Your task to perform on an android device: Open sound settings Image 0: 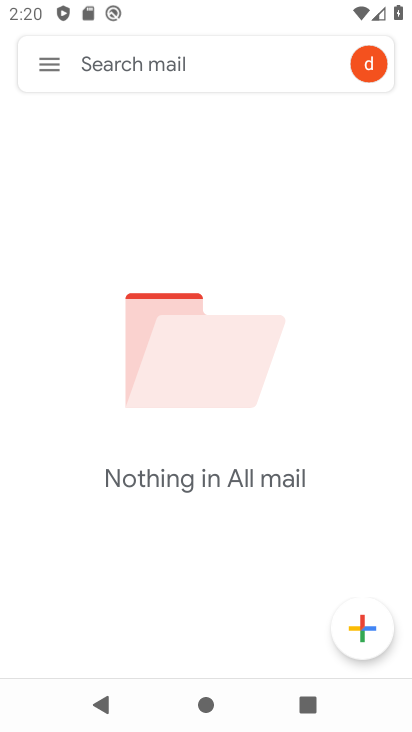
Step 0: press home button
Your task to perform on an android device: Open sound settings Image 1: 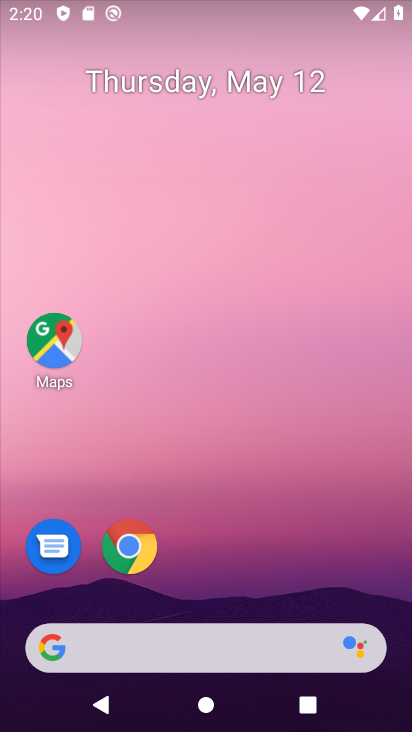
Step 1: drag from (176, 630) to (270, 108)
Your task to perform on an android device: Open sound settings Image 2: 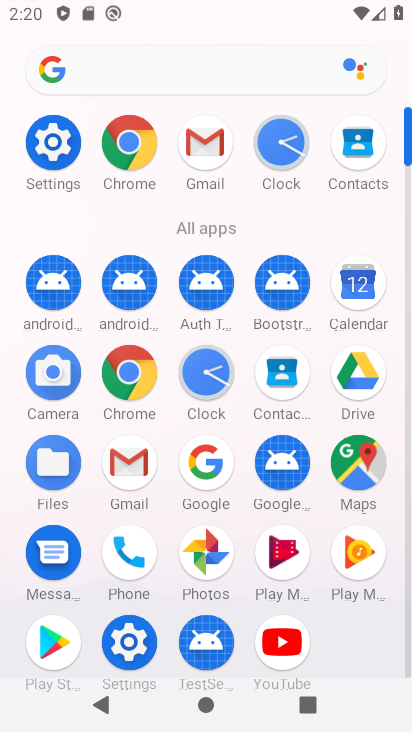
Step 2: drag from (203, 644) to (260, 344)
Your task to perform on an android device: Open sound settings Image 3: 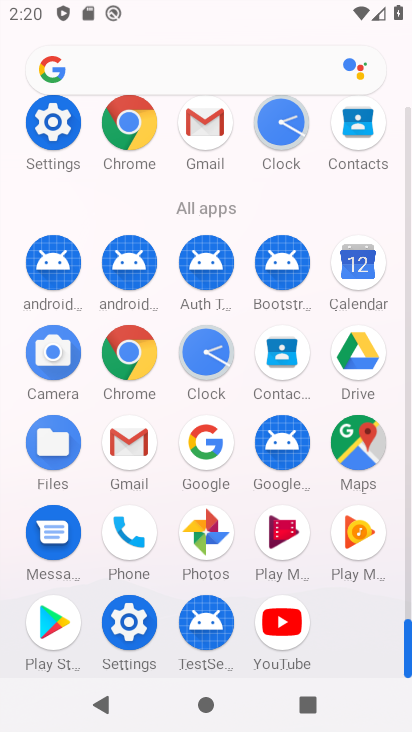
Step 3: click (141, 631)
Your task to perform on an android device: Open sound settings Image 4: 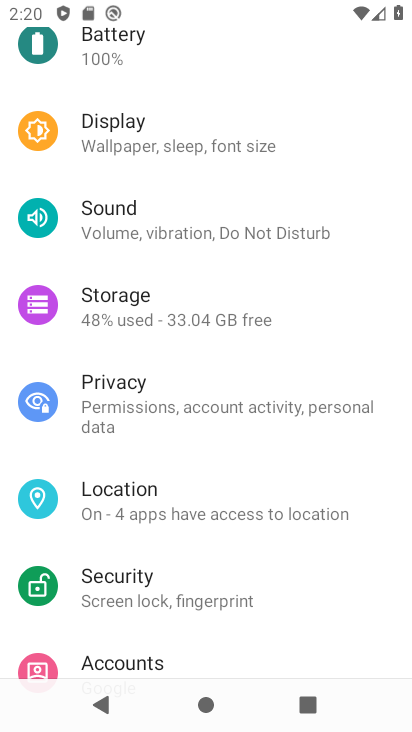
Step 4: click (164, 220)
Your task to perform on an android device: Open sound settings Image 5: 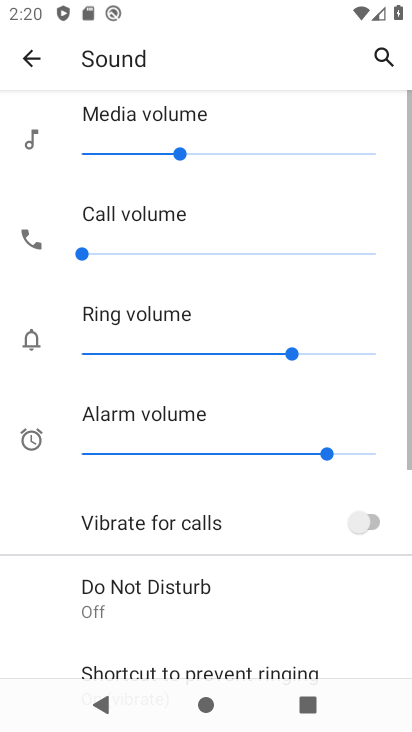
Step 5: task complete